Your task to perform on an android device: Open privacy settings Image 0: 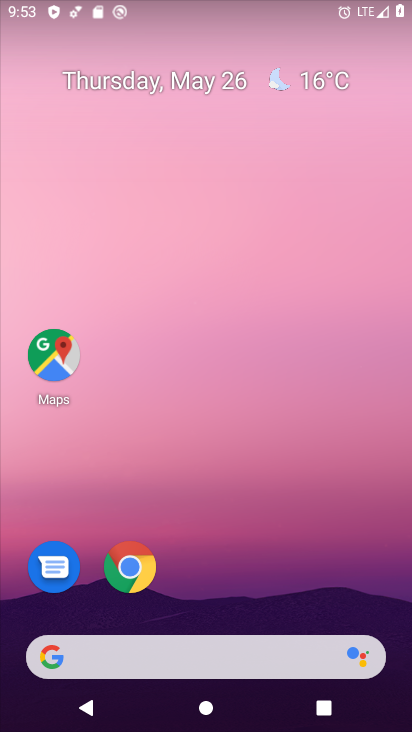
Step 0: click (122, 551)
Your task to perform on an android device: Open privacy settings Image 1: 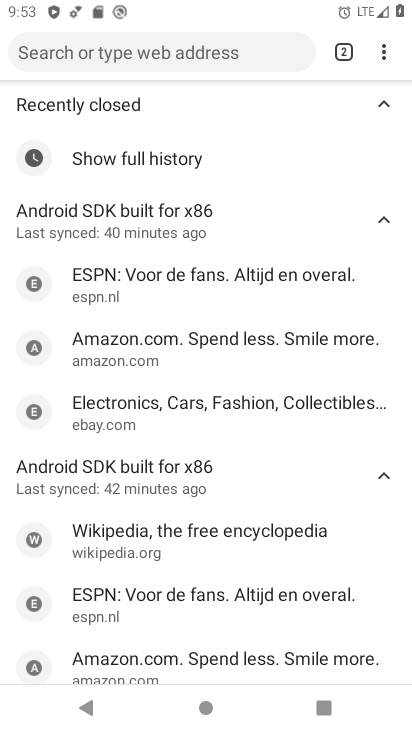
Step 1: click (382, 52)
Your task to perform on an android device: Open privacy settings Image 2: 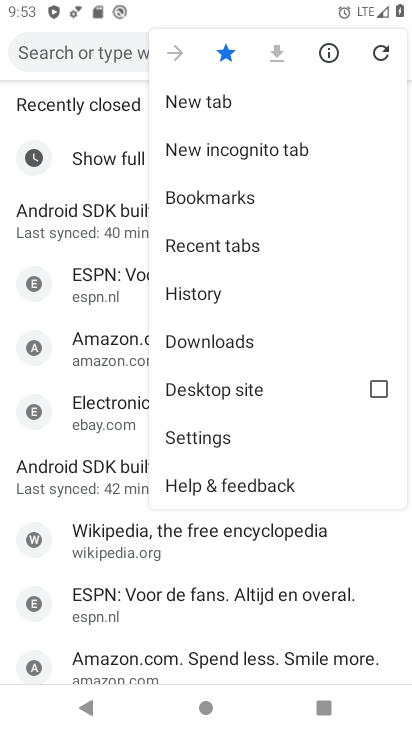
Step 2: click (193, 439)
Your task to perform on an android device: Open privacy settings Image 3: 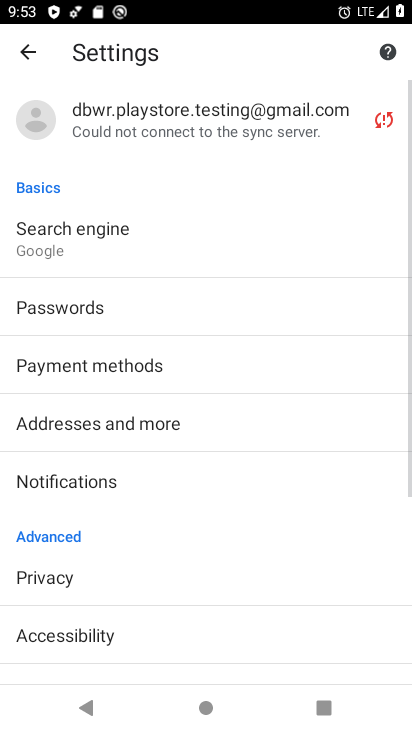
Step 3: click (53, 578)
Your task to perform on an android device: Open privacy settings Image 4: 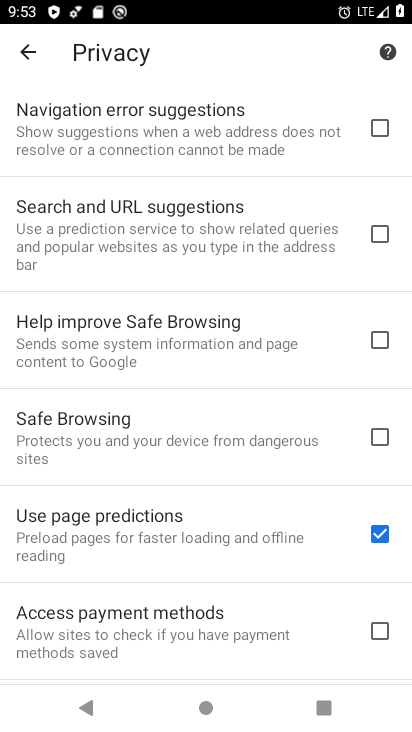
Step 4: task complete